Your task to perform on an android device: Clear the cart on bestbuy.com. Search for bose soundsport free on bestbuy.com, select the first entry, add it to the cart, then select checkout. Image 0: 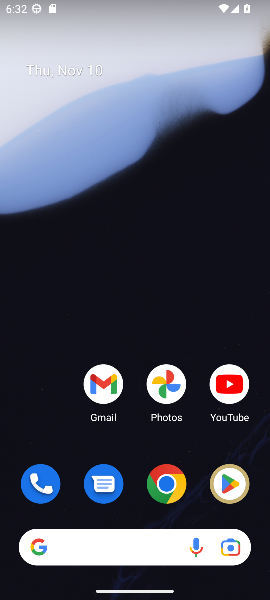
Step 0: click (167, 488)
Your task to perform on an android device: Clear the cart on bestbuy.com. Search for bose soundsport free on bestbuy.com, select the first entry, add it to the cart, then select checkout. Image 1: 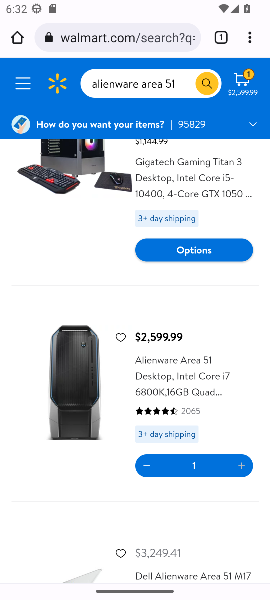
Step 1: click (123, 35)
Your task to perform on an android device: Clear the cart on bestbuy.com. Search for bose soundsport free on bestbuy.com, select the first entry, add it to the cart, then select checkout. Image 2: 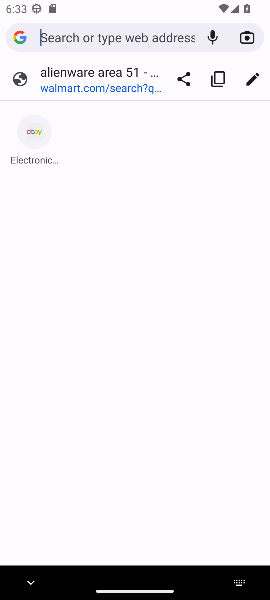
Step 2: type "bestbuy.com"
Your task to perform on an android device: Clear the cart on bestbuy.com. Search for bose soundsport free on bestbuy.com, select the first entry, add it to the cart, then select checkout. Image 3: 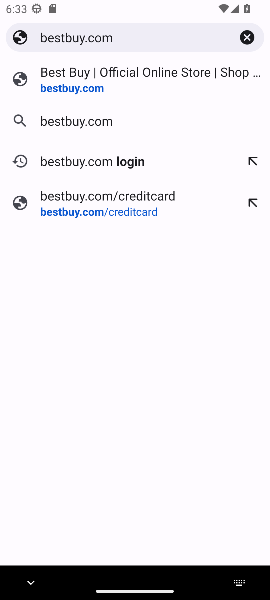
Step 3: click (80, 88)
Your task to perform on an android device: Clear the cart on bestbuy.com. Search for bose soundsport free on bestbuy.com, select the first entry, add it to the cart, then select checkout. Image 4: 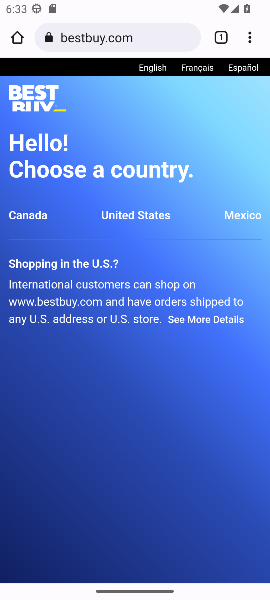
Step 4: click (140, 228)
Your task to perform on an android device: Clear the cart on bestbuy.com. Search for bose soundsport free on bestbuy.com, select the first entry, add it to the cart, then select checkout. Image 5: 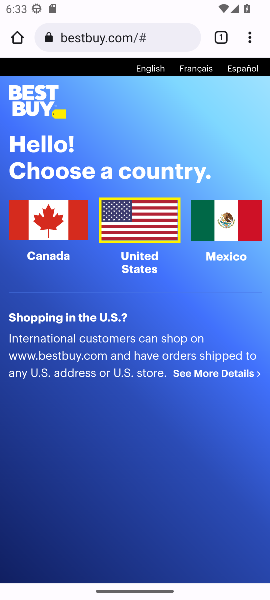
Step 5: click (129, 235)
Your task to perform on an android device: Clear the cart on bestbuy.com. Search for bose soundsport free on bestbuy.com, select the first entry, add it to the cart, then select checkout. Image 6: 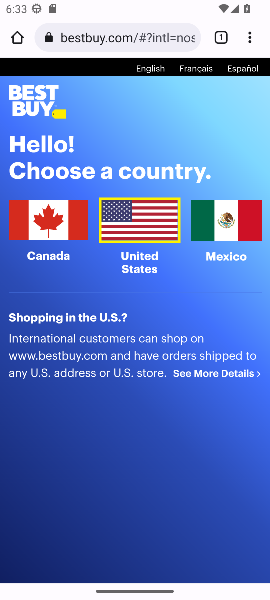
Step 6: click (147, 232)
Your task to perform on an android device: Clear the cart on bestbuy.com. Search for bose soundsport free on bestbuy.com, select the first entry, add it to the cart, then select checkout. Image 7: 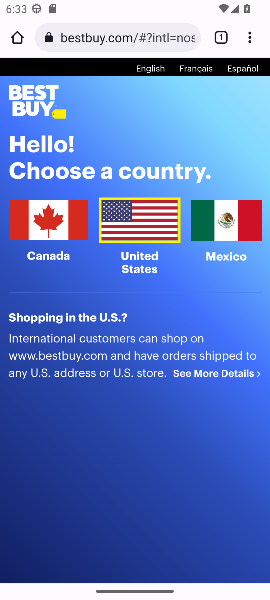
Step 7: click (140, 232)
Your task to perform on an android device: Clear the cart on bestbuy.com. Search for bose soundsport free on bestbuy.com, select the first entry, add it to the cart, then select checkout. Image 8: 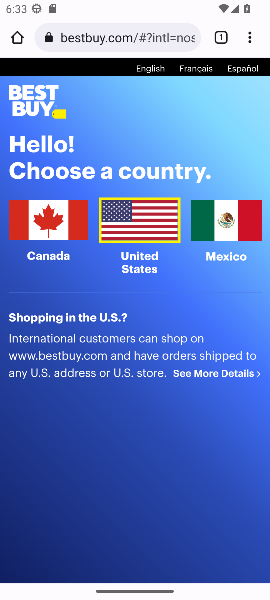
Step 8: click (129, 230)
Your task to perform on an android device: Clear the cart on bestbuy.com. Search for bose soundsport free on bestbuy.com, select the first entry, add it to the cart, then select checkout. Image 9: 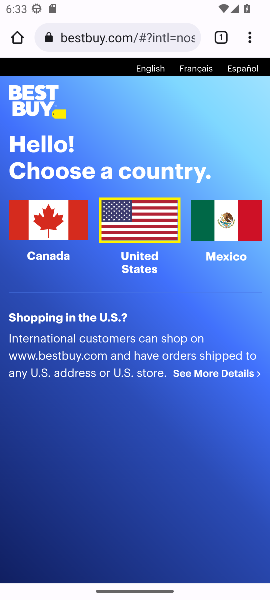
Step 9: click (129, 230)
Your task to perform on an android device: Clear the cart on bestbuy.com. Search for bose soundsport free on bestbuy.com, select the first entry, add it to the cart, then select checkout. Image 10: 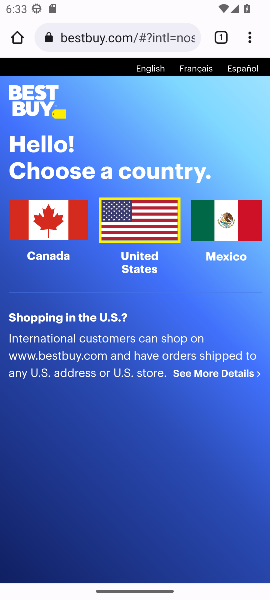
Step 10: click (145, 406)
Your task to perform on an android device: Clear the cart on bestbuy.com. Search for bose soundsport free on bestbuy.com, select the first entry, add it to the cart, then select checkout. Image 11: 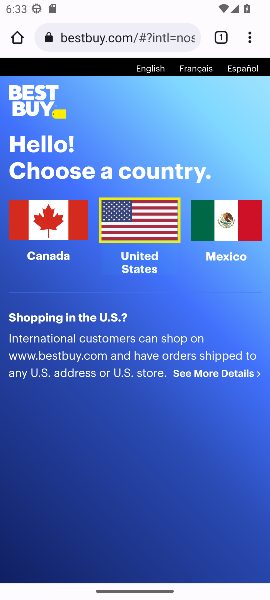
Step 11: click (129, 224)
Your task to perform on an android device: Clear the cart on bestbuy.com. Search for bose soundsport free on bestbuy.com, select the first entry, add it to the cart, then select checkout. Image 12: 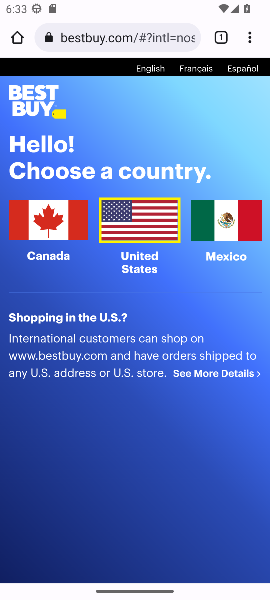
Step 12: drag from (110, 274) to (97, 427)
Your task to perform on an android device: Clear the cart on bestbuy.com. Search for bose soundsport free on bestbuy.com, select the first entry, add it to the cart, then select checkout. Image 13: 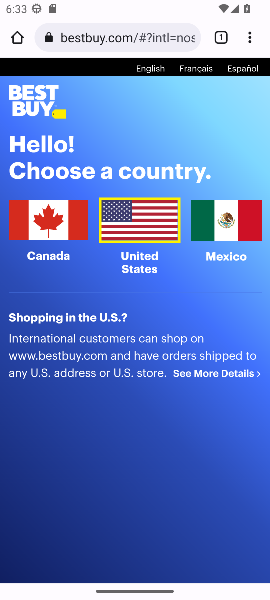
Step 13: click (52, 231)
Your task to perform on an android device: Clear the cart on bestbuy.com. Search for bose soundsport free on bestbuy.com, select the first entry, add it to the cart, then select checkout. Image 14: 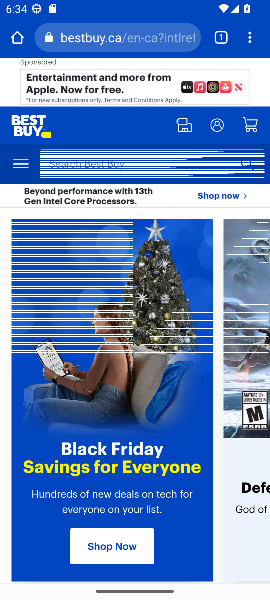
Step 14: click (249, 128)
Your task to perform on an android device: Clear the cart on bestbuy.com. Search for bose soundsport free on bestbuy.com, select the first entry, add it to the cart, then select checkout. Image 15: 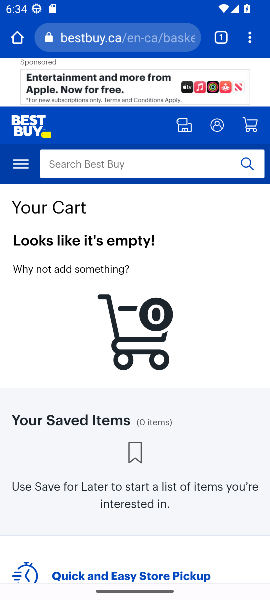
Step 15: drag from (151, 450) to (152, 323)
Your task to perform on an android device: Clear the cart on bestbuy.com. Search for bose soundsport free on bestbuy.com, select the first entry, add it to the cart, then select checkout. Image 16: 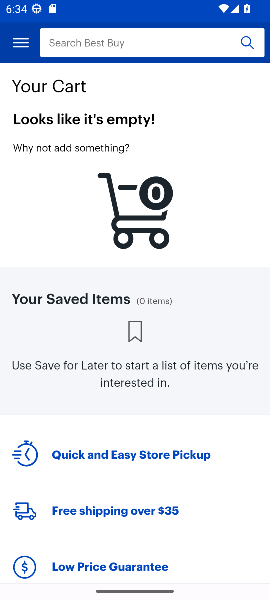
Step 16: drag from (184, 263) to (174, 450)
Your task to perform on an android device: Clear the cart on bestbuy.com. Search for bose soundsport free on bestbuy.com, select the first entry, add it to the cart, then select checkout. Image 17: 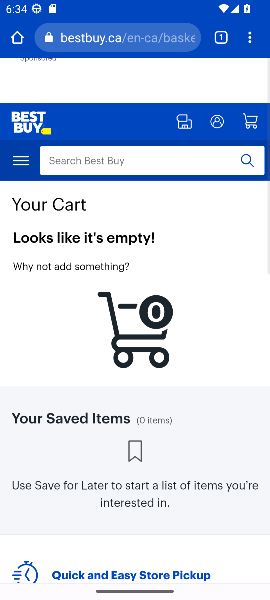
Step 17: click (112, 159)
Your task to perform on an android device: Clear the cart on bestbuy.com. Search for bose soundsport free on bestbuy.com, select the first entry, add it to the cart, then select checkout. Image 18: 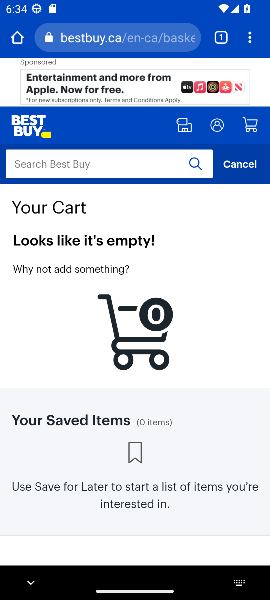
Step 18: type "bose soundsport free "
Your task to perform on an android device: Clear the cart on bestbuy.com. Search for bose soundsport free on bestbuy.com, select the first entry, add it to the cart, then select checkout. Image 19: 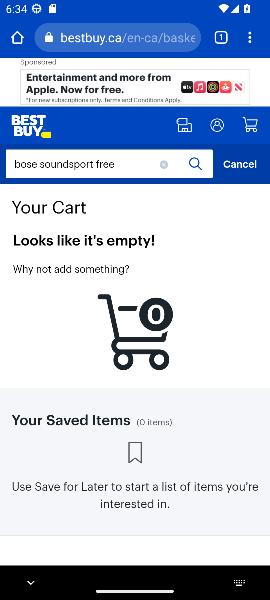
Step 19: click (199, 163)
Your task to perform on an android device: Clear the cart on bestbuy.com. Search for bose soundsport free on bestbuy.com, select the first entry, add it to the cart, then select checkout. Image 20: 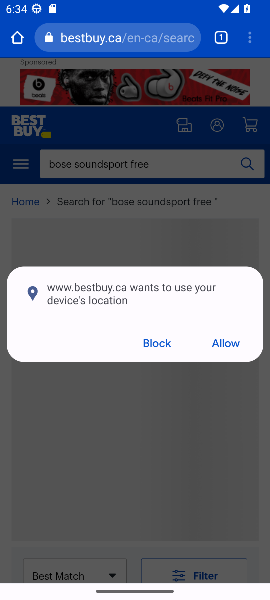
Step 20: click (148, 345)
Your task to perform on an android device: Clear the cart on bestbuy.com. Search for bose soundsport free on bestbuy.com, select the first entry, add it to the cart, then select checkout. Image 21: 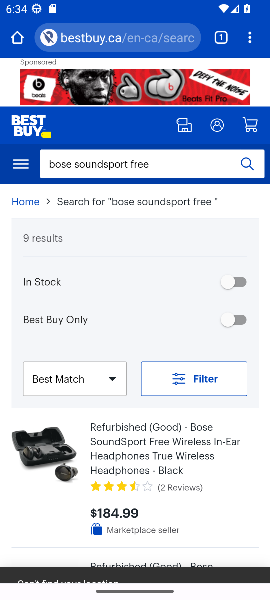
Step 21: drag from (130, 320) to (130, 433)
Your task to perform on an android device: Clear the cart on bestbuy.com. Search for bose soundsport free on bestbuy.com, select the first entry, add it to the cart, then select checkout. Image 22: 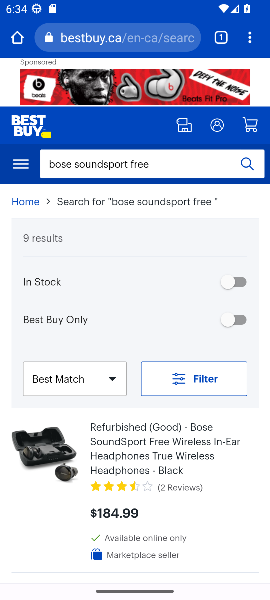
Step 22: click (231, 279)
Your task to perform on an android device: Clear the cart on bestbuy.com. Search for bose soundsport free on bestbuy.com, select the first entry, add it to the cart, then select checkout. Image 23: 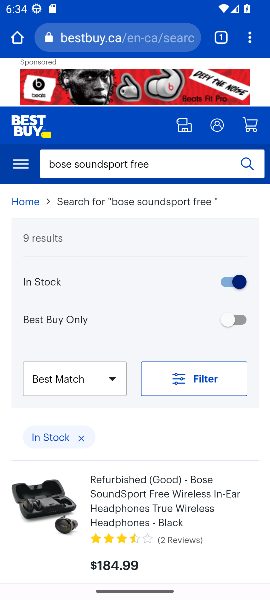
Step 23: drag from (98, 419) to (103, 306)
Your task to perform on an android device: Clear the cart on bestbuy.com. Search for bose soundsport free on bestbuy.com, select the first entry, add it to the cart, then select checkout. Image 24: 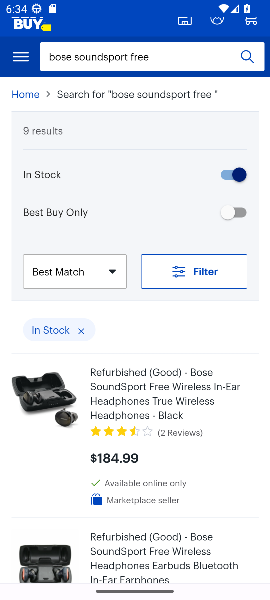
Step 24: click (227, 210)
Your task to perform on an android device: Clear the cart on bestbuy.com. Search for bose soundsport free on bestbuy.com, select the first entry, add it to the cart, then select checkout. Image 25: 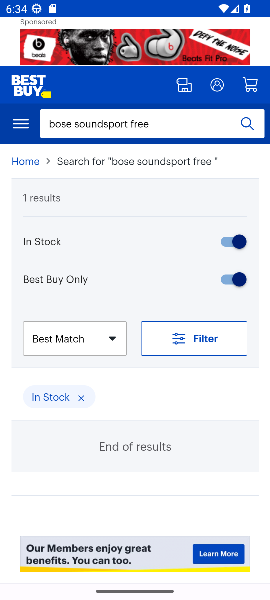
Step 25: drag from (104, 421) to (111, 333)
Your task to perform on an android device: Clear the cart on bestbuy.com. Search for bose soundsport free on bestbuy.com, select the first entry, add it to the cart, then select checkout. Image 26: 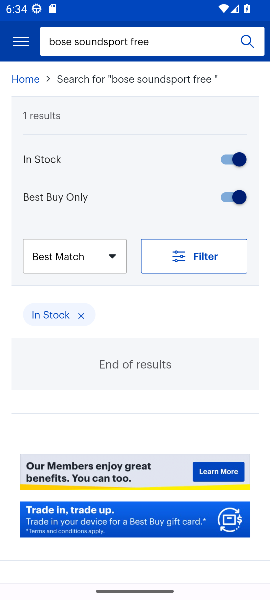
Step 26: click (242, 199)
Your task to perform on an android device: Clear the cart on bestbuy.com. Search for bose soundsport free on bestbuy.com, select the first entry, add it to the cart, then select checkout. Image 27: 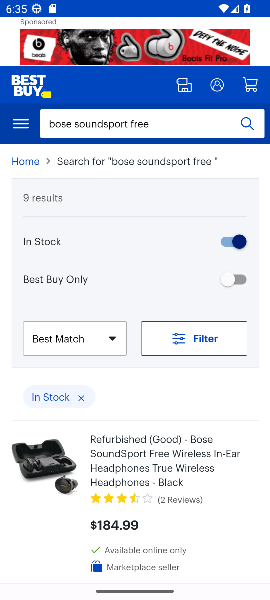
Step 27: drag from (98, 457) to (102, 343)
Your task to perform on an android device: Clear the cart on bestbuy.com. Search for bose soundsport free on bestbuy.com, select the first entry, add it to the cart, then select checkout. Image 28: 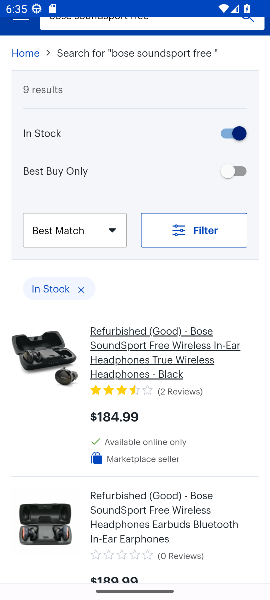
Step 28: click (91, 382)
Your task to perform on an android device: Clear the cart on bestbuy.com. Search for bose soundsport free on bestbuy.com, select the first entry, add it to the cart, then select checkout. Image 29: 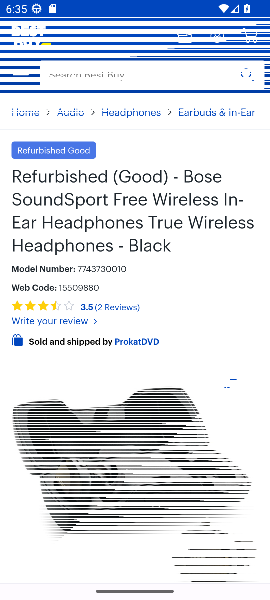
Step 29: drag from (91, 418) to (106, 240)
Your task to perform on an android device: Clear the cart on bestbuy.com. Search for bose soundsport free on bestbuy.com, select the first entry, add it to the cart, then select checkout. Image 30: 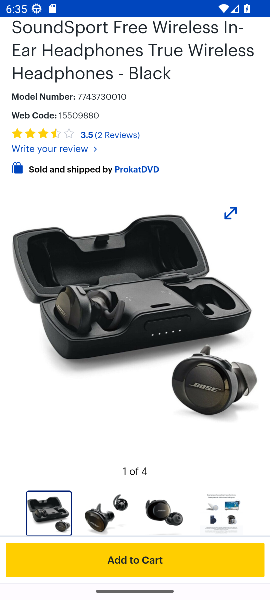
Step 30: drag from (107, 444) to (111, 288)
Your task to perform on an android device: Clear the cart on bestbuy.com. Search for bose soundsport free on bestbuy.com, select the first entry, add it to the cart, then select checkout. Image 31: 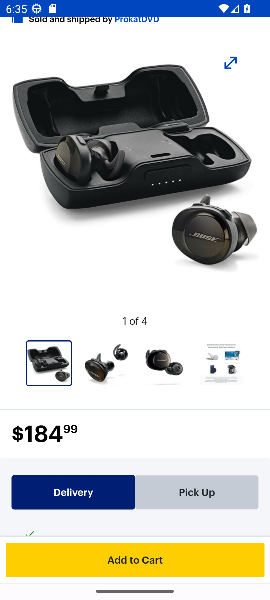
Step 31: click (125, 567)
Your task to perform on an android device: Clear the cart on bestbuy.com. Search for bose soundsport free on bestbuy.com, select the first entry, add it to the cart, then select checkout. Image 32: 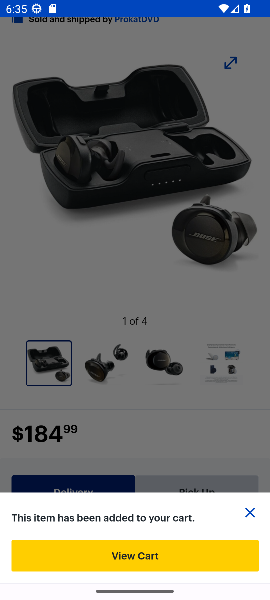
Step 32: click (135, 555)
Your task to perform on an android device: Clear the cart on bestbuy.com. Search for bose soundsport free on bestbuy.com, select the first entry, add it to the cart, then select checkout. Image 33: 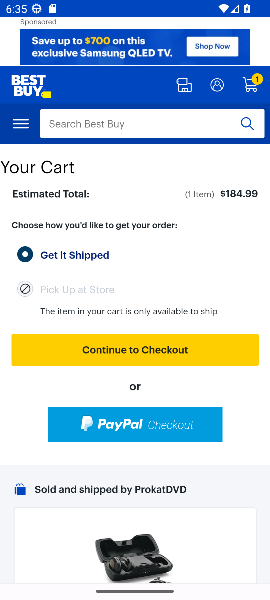
Step 33: click (127, 346)
Your task to perform on an android device: Clear the cart on bestbuy.com. Search for bose soundsport free on bestbuy.com, select the first entry, add it to the cart, then select checkout. Image 34: 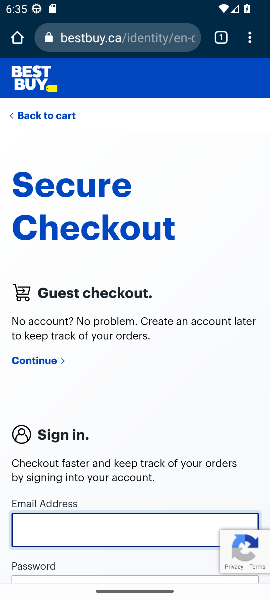
Step 34: task complete